Your task to perform on an android device: Go to Android settings Image 0: 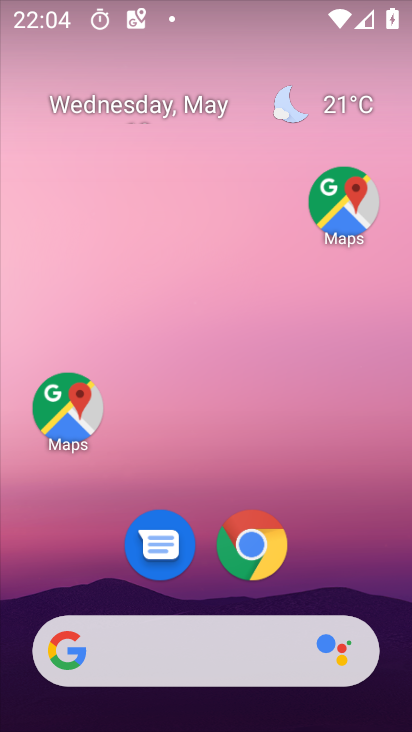
Step 0: drag from (324, 586) to (257, 18)
Your task to perform on an android device: Go to Android settings Image 1: 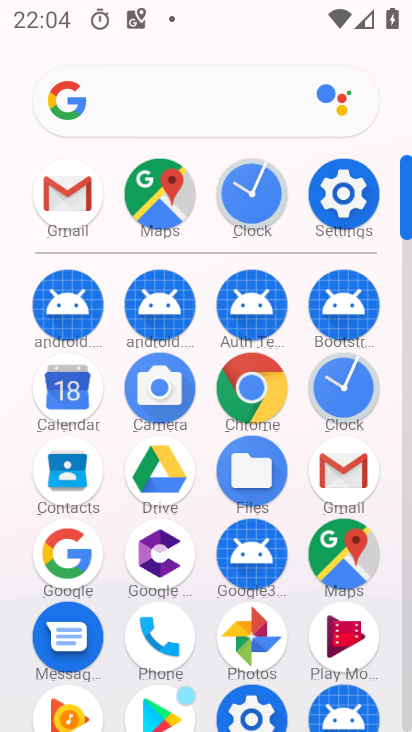
Step 1: click (351, 197)
Your task to perform on an android device: Go to Android settings Image 2: 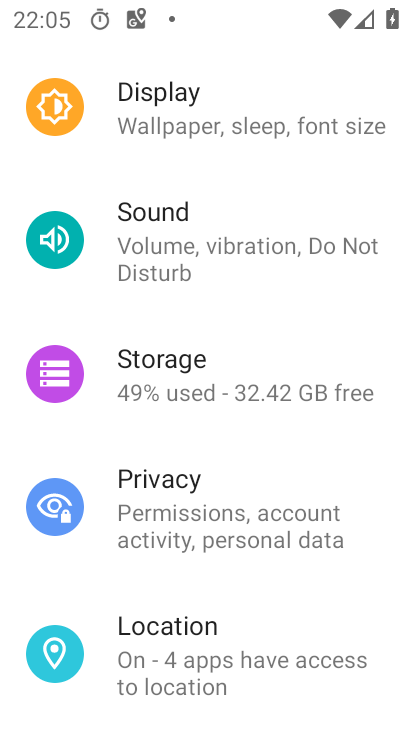
Step 2: drag from (248, 659) to (218, 317)
Your task to perform on an android device: Go to Android settings Image 3: 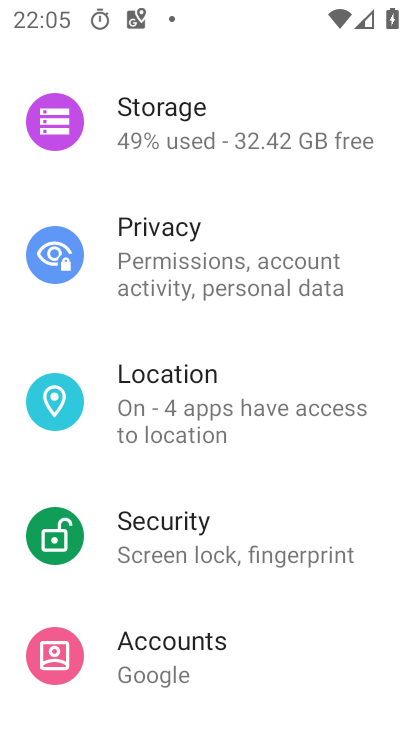
Step 3: drag from (242, 659) to (246, 339)
Your task to perform on an android device: Go to Android settings Image 4: 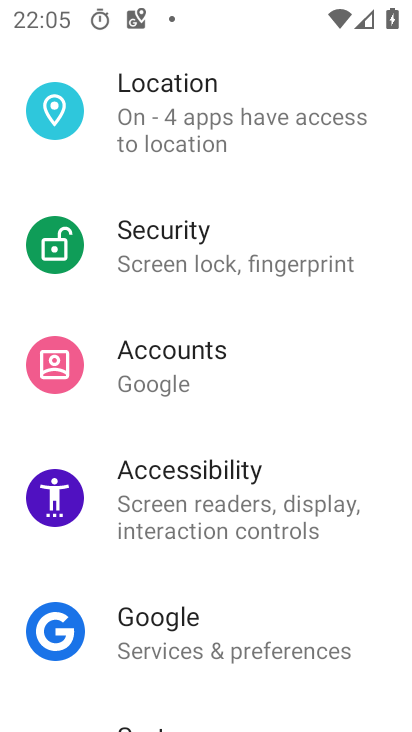
Step 4: drag from (268, 678) to (234, 329)
Your task to perform on an android device: Go to Android settings Image 5: 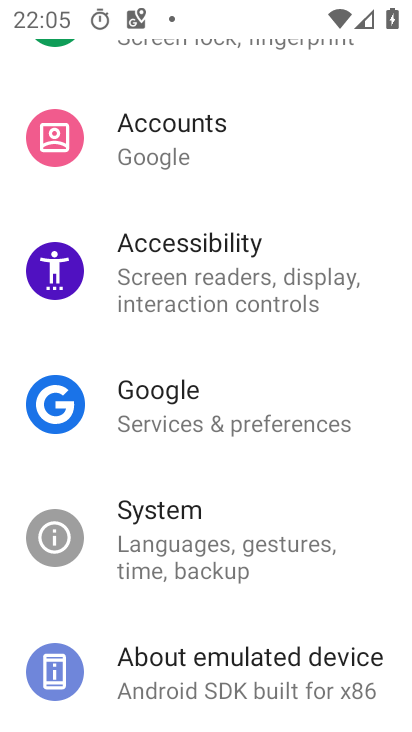
Step 5: click (188, 537)
Your task to perform on an android device: Go to Android settings Image 6: 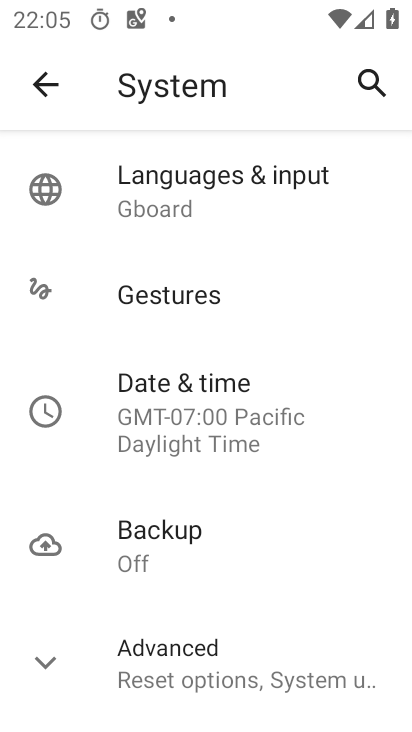
Step 6: task complete